Your task to perform on an android device: find photos in the google photos app Image 0: 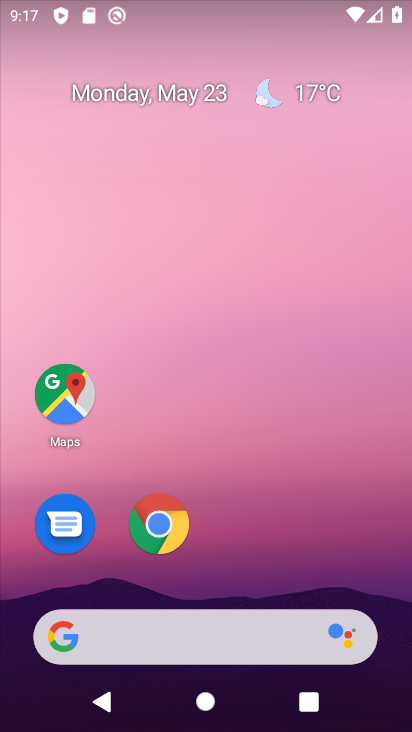
Step 0: drag from (288, 549) to (205, 2)
Your task to perform on an android device: find photos in the google photos app Image 1: 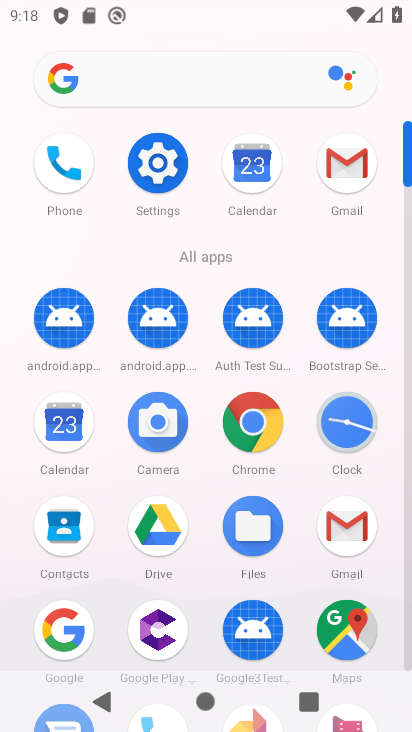
Step 1: drag from (198, 616) to (210, 242)
Your task to perform on an android device: find photos in the google photos app Image 2: 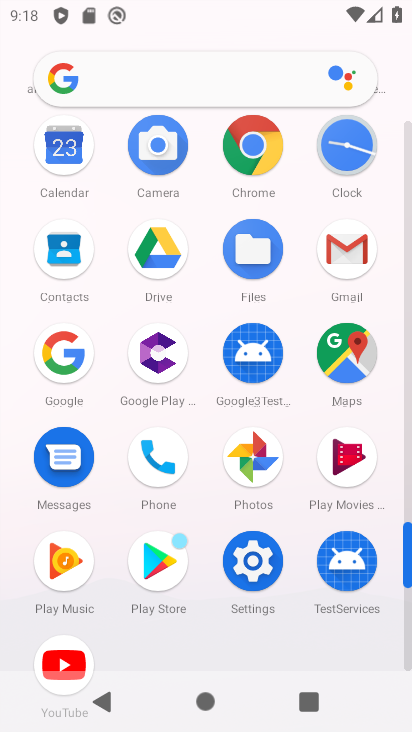
Step 2: click (244, 444)
Your task to perform on an android device: find photos in the google photos app Image 3: 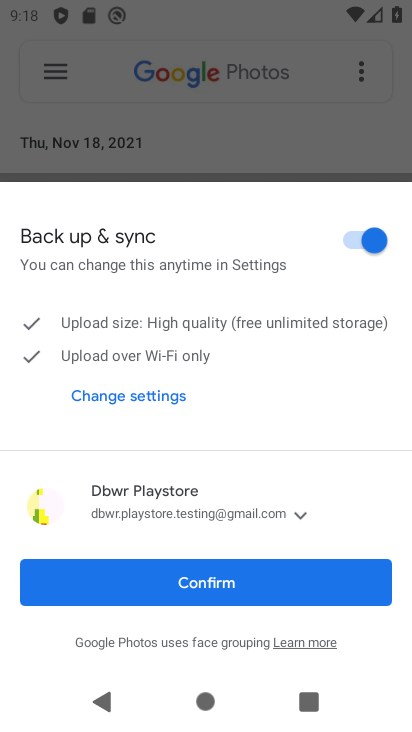
Step 3: click (233, 573)
Your task to perform on an android device: find photos in the google photos app Image 4: 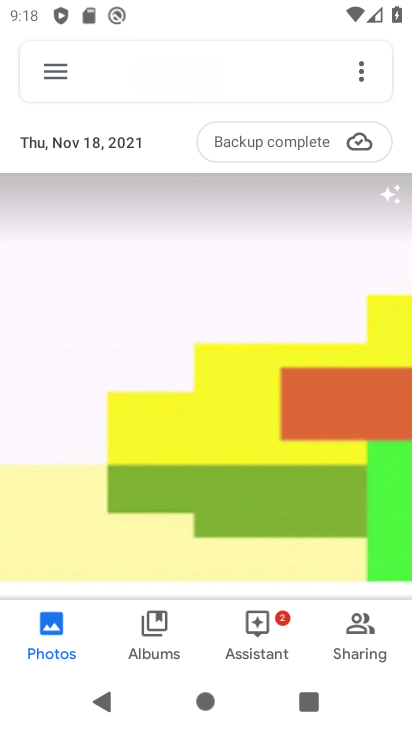
Step 4: click (175, 76)
Your task to perform on an android device: find photos in the google photos app Image 5: 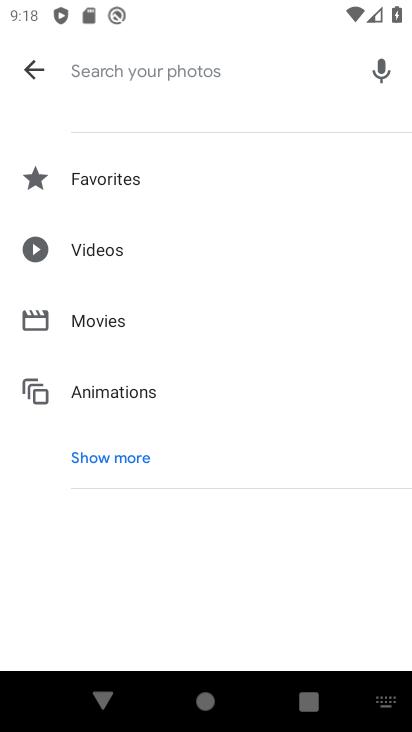
Step 5: type "aa"
Your task to perform on an android device: find photos in the google photos app Image 6: 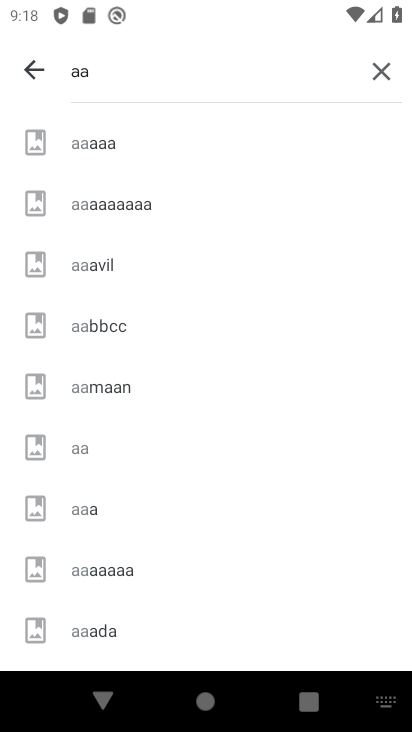
Step 6: click (96, 272)
Your task to perform on an android device: find photos in the google photos app Image 7: 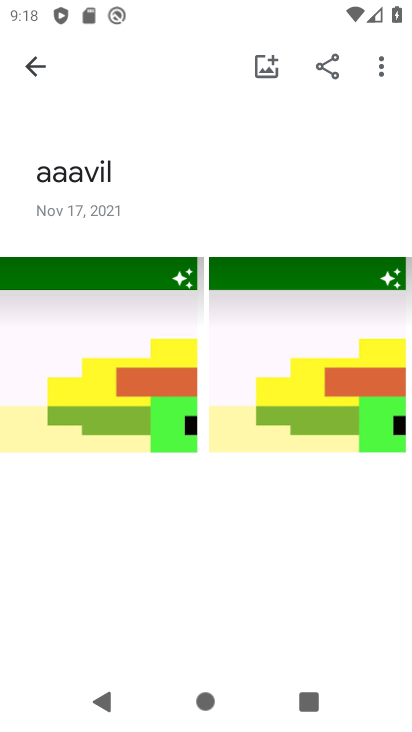
Step 7: task complete